Your task to perform on an android device: Check the weather Image 0: 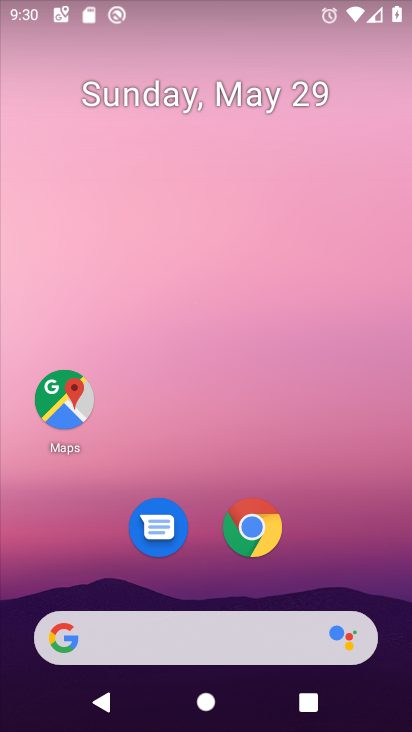
Step 0: press home button
Your task to perform on an android device: Check the weather Image 1: 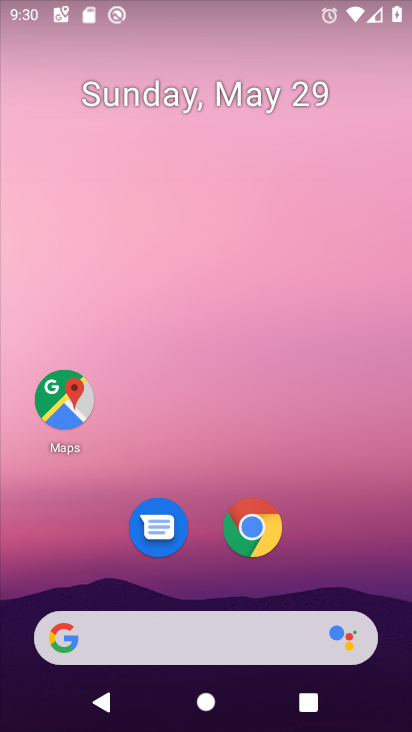
Step 1: drag from (4, 285) to (389, 287)
Your task to perform on an android device: Check the weather Image 2: 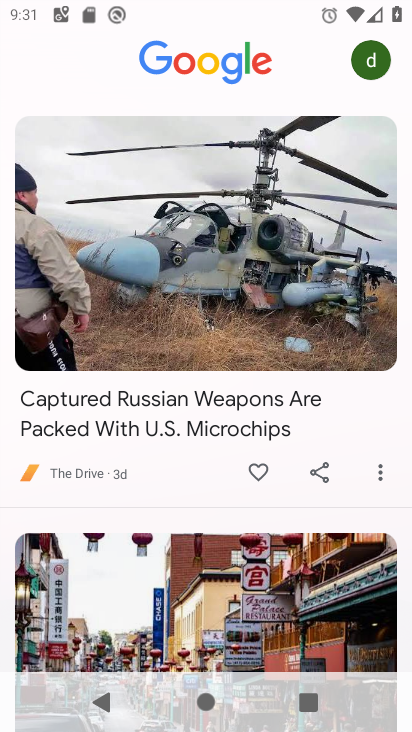
Step 2: press back button
Your task to perform on an android device: Check the weather Image 3: 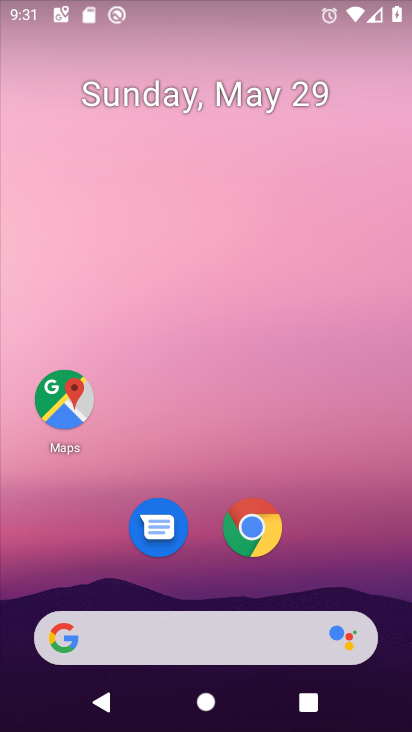
Step 3: click (161, 632)
Your task to perform on an android device: Check the weather Image 4: 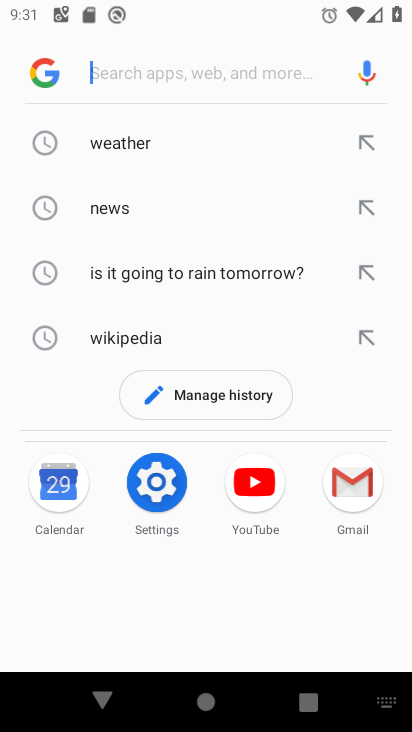
Step 4: click (160, 141)
Your task to perform on an android device: Check the weather Image 5: 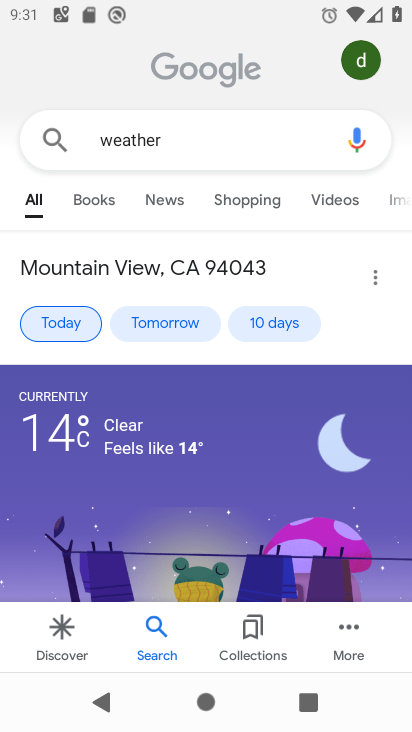
Step 5: task complete